Your task to perform on an android device: check the backup settings in the google photos Image 0: 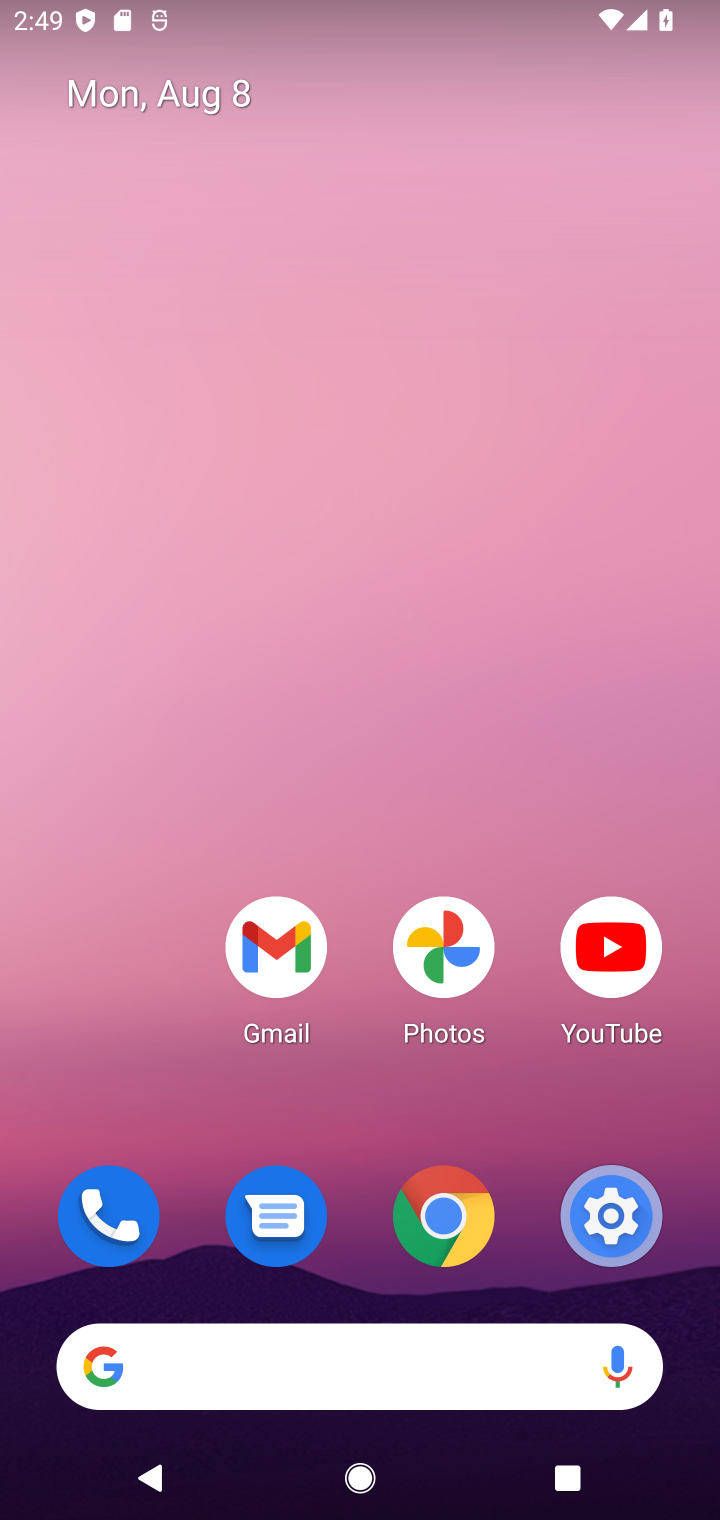
Step 0: click (474, 945)
Your task to perform on an android device: check the backup settings in the google photos Image 1: 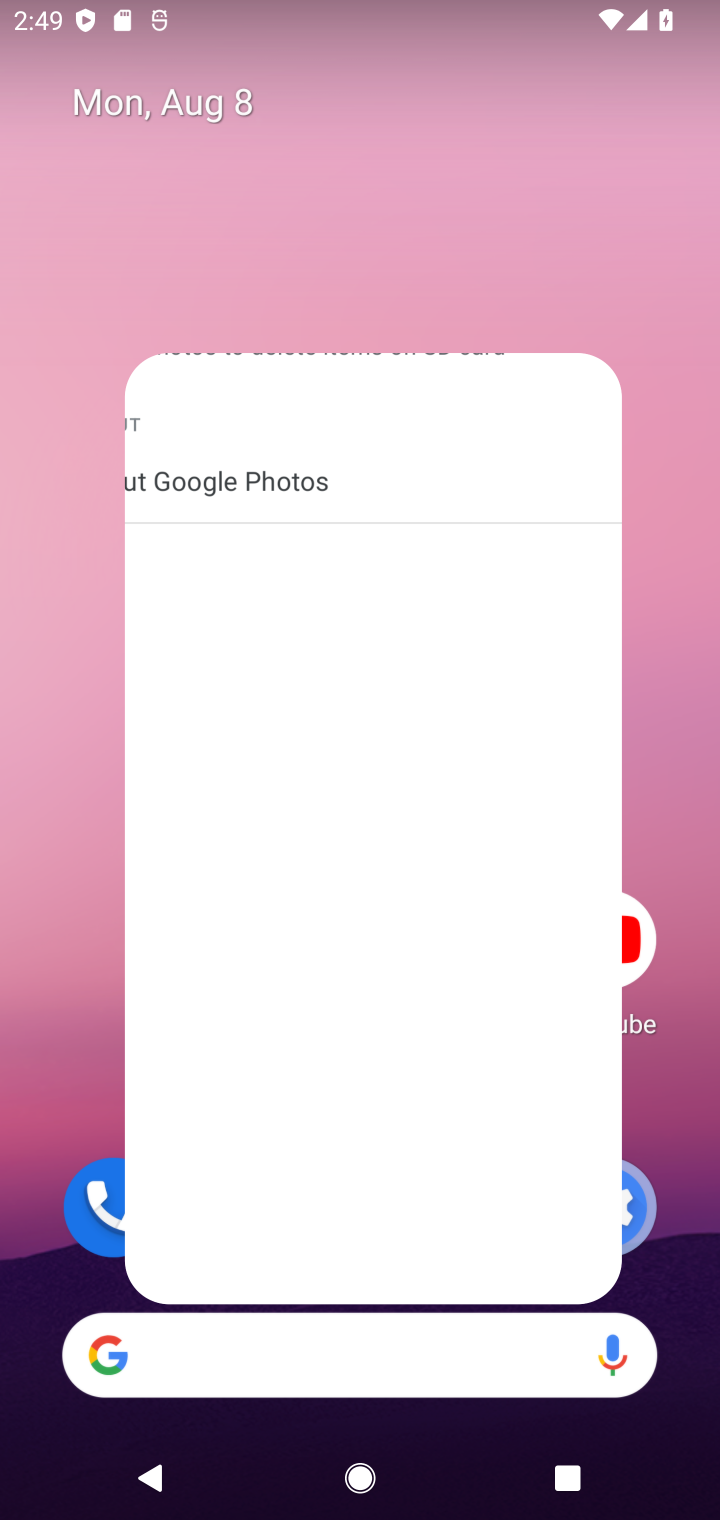
Step 1: click (453, 953)
Your task to perform on an android device: check the backup settings in the google photos Image 2: 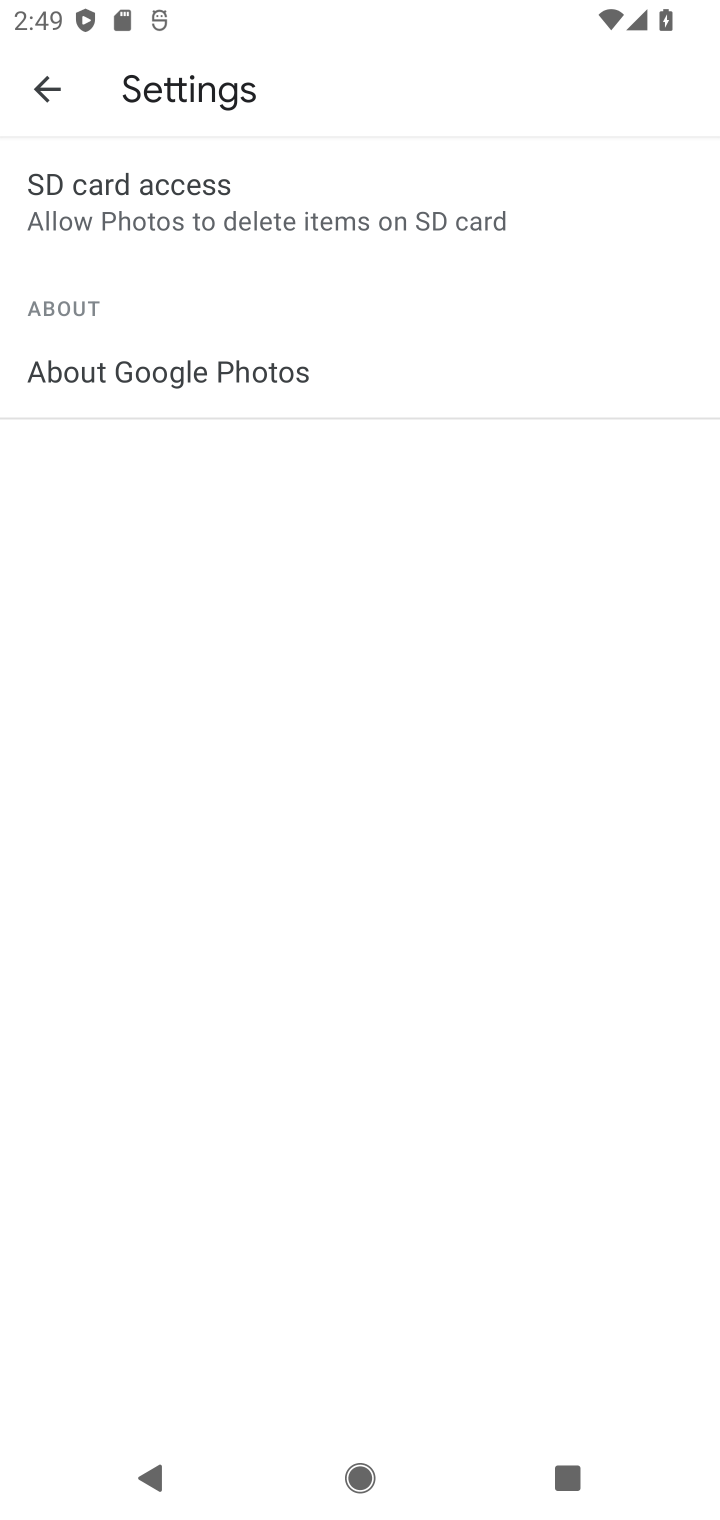
Step 2: click (35, 85)
Your task to perform on an android device: check the backup settings in the google photos Image 3: 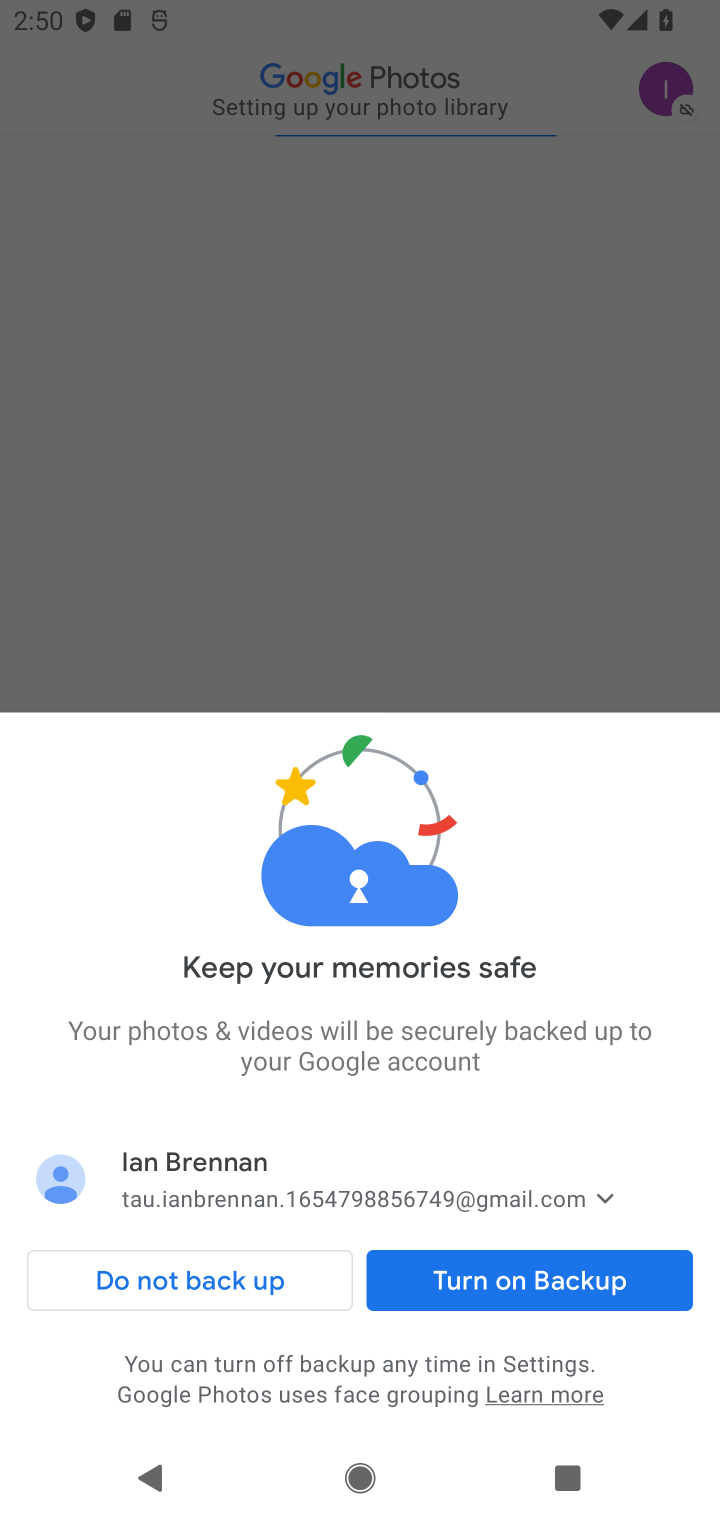
Step 3: click (600, 1267)
Your task to perform on an android device: check the backup settings in the google photos Image 4: 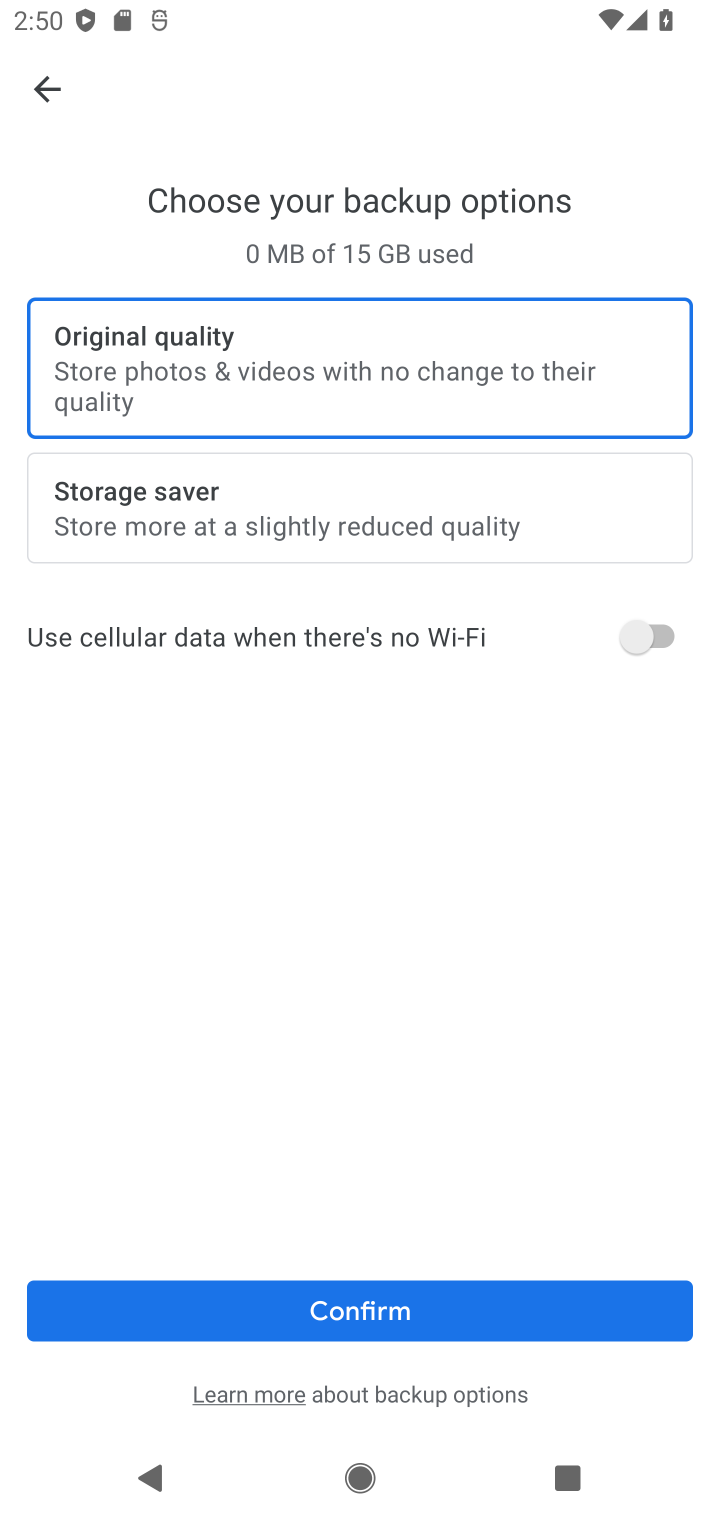
Step 4: click (90, 535)
Your task to perform on an android device: check the backup settings in the google photos Image 5: 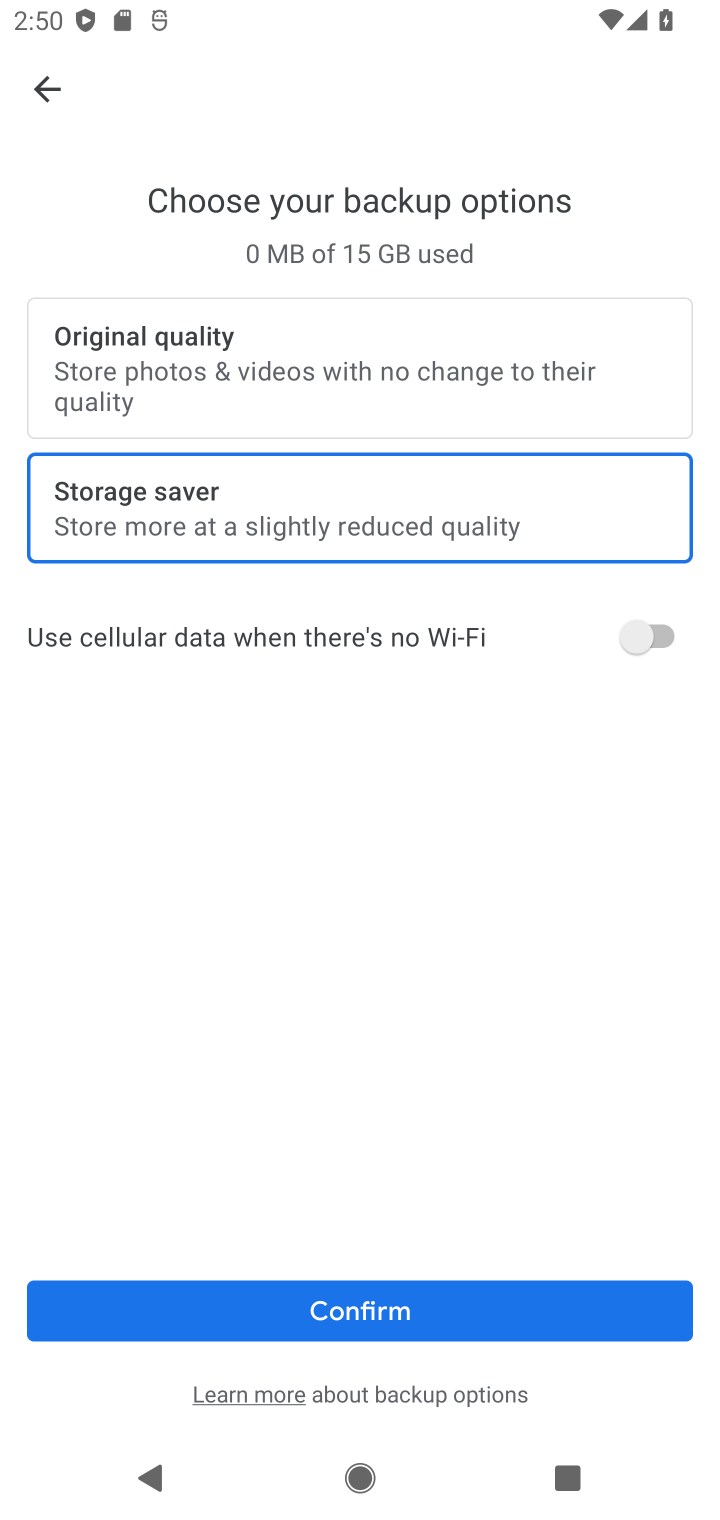
Step 5: click (384, 1320)
Your task to perform on an android device: check the backup settings in the google photos Image 6: 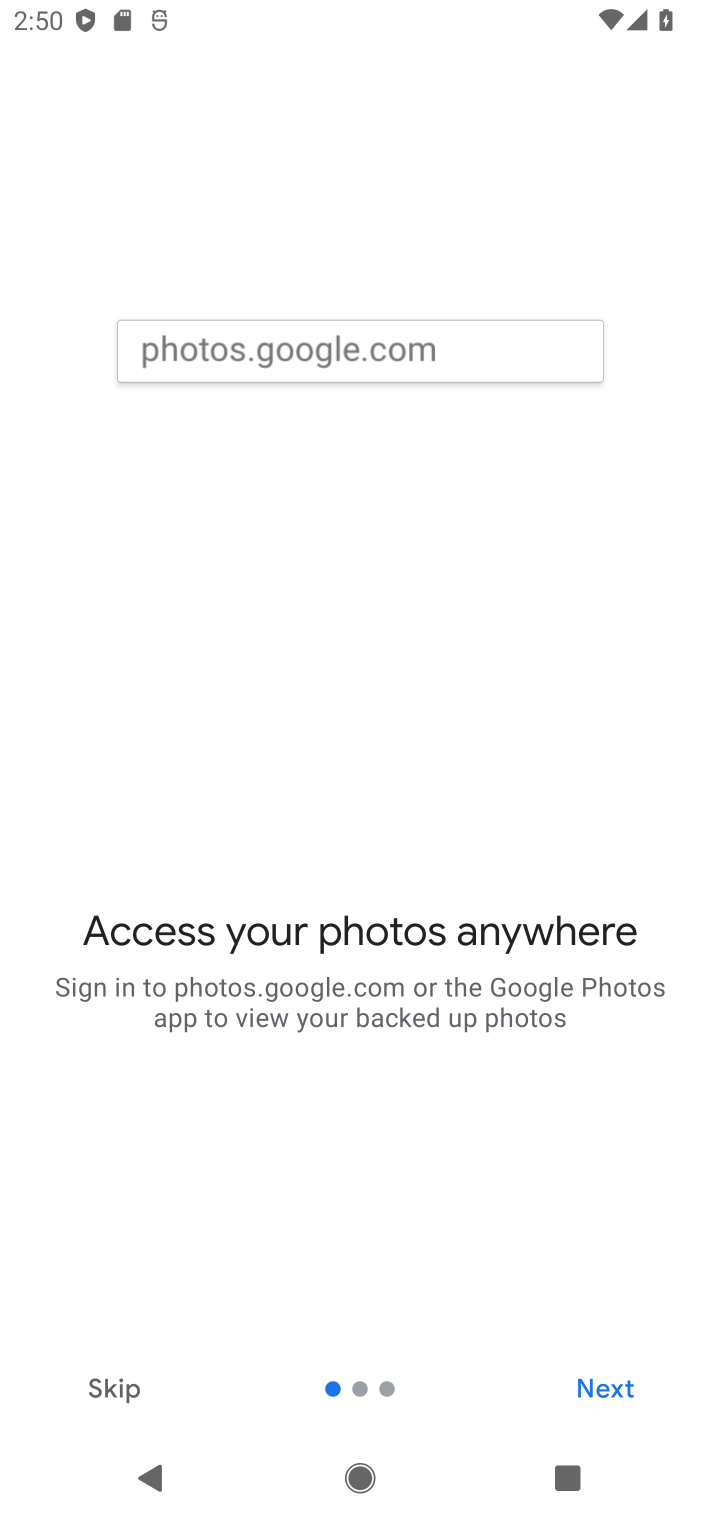
Step 6: click (611, 1401)
Your task to perform on an android device: check the backup settings in the google photos Image 7: 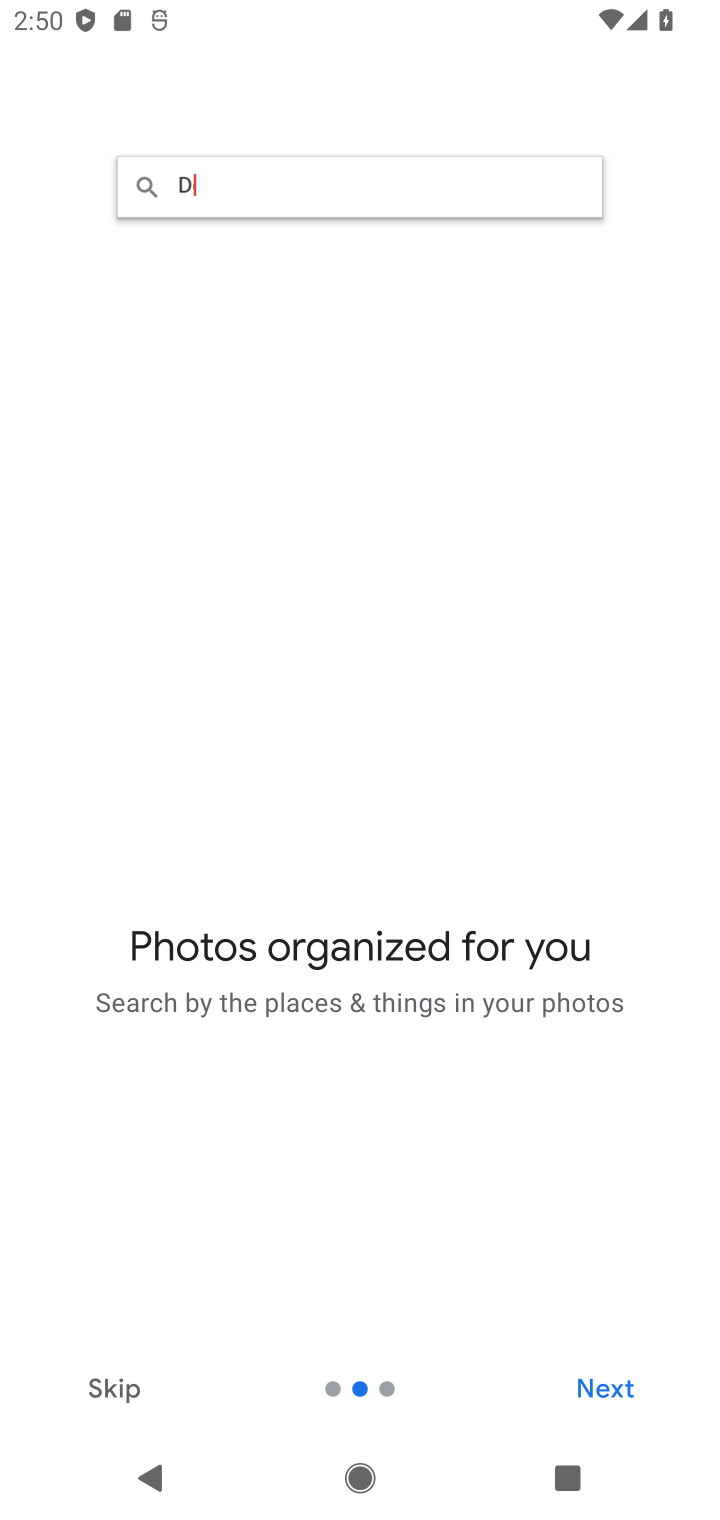
Step 7: click (611, 1401)
Your task to perform on an android device: check the backup settings in the google photos Image 8: 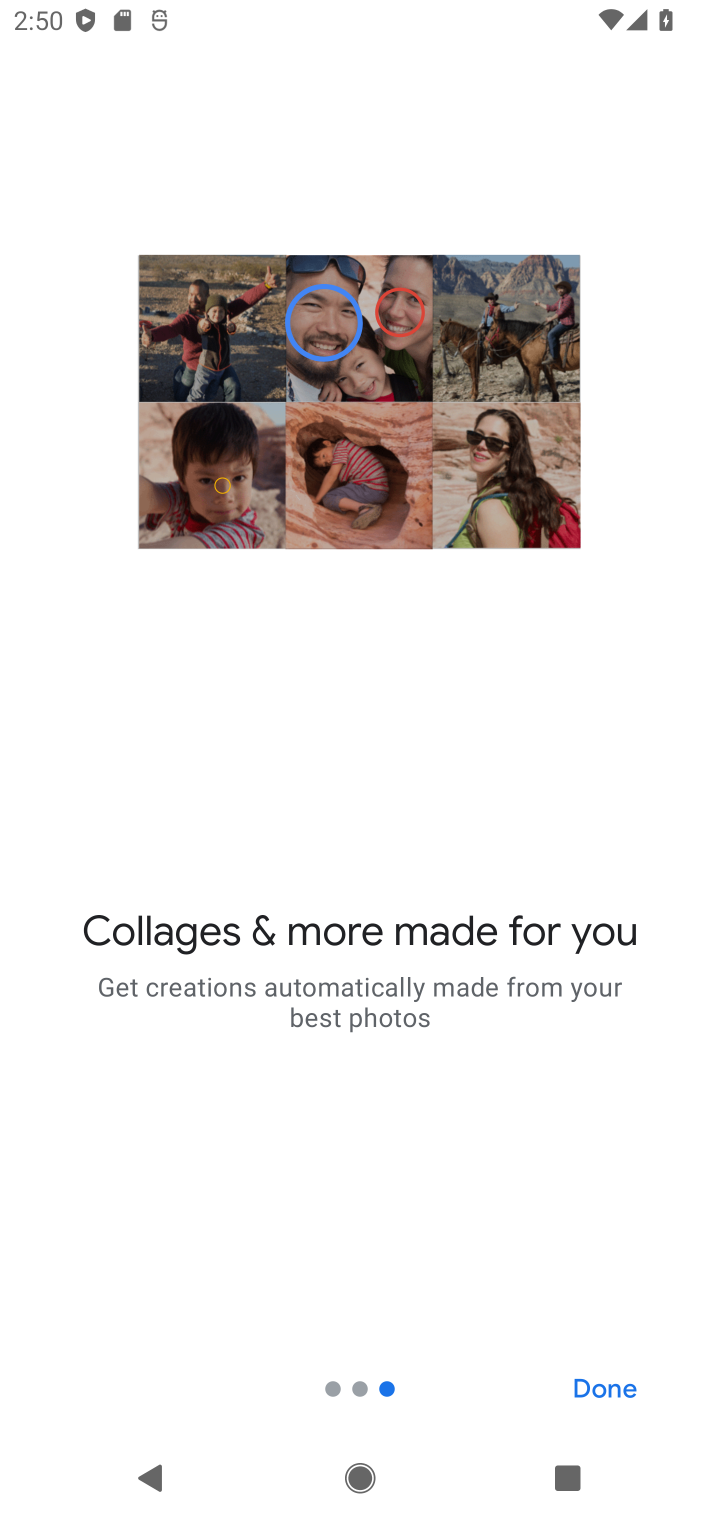
Step 8: click (611, 1401)
Your task to perform on an android device: check the backup settings in the google photos Image 9: 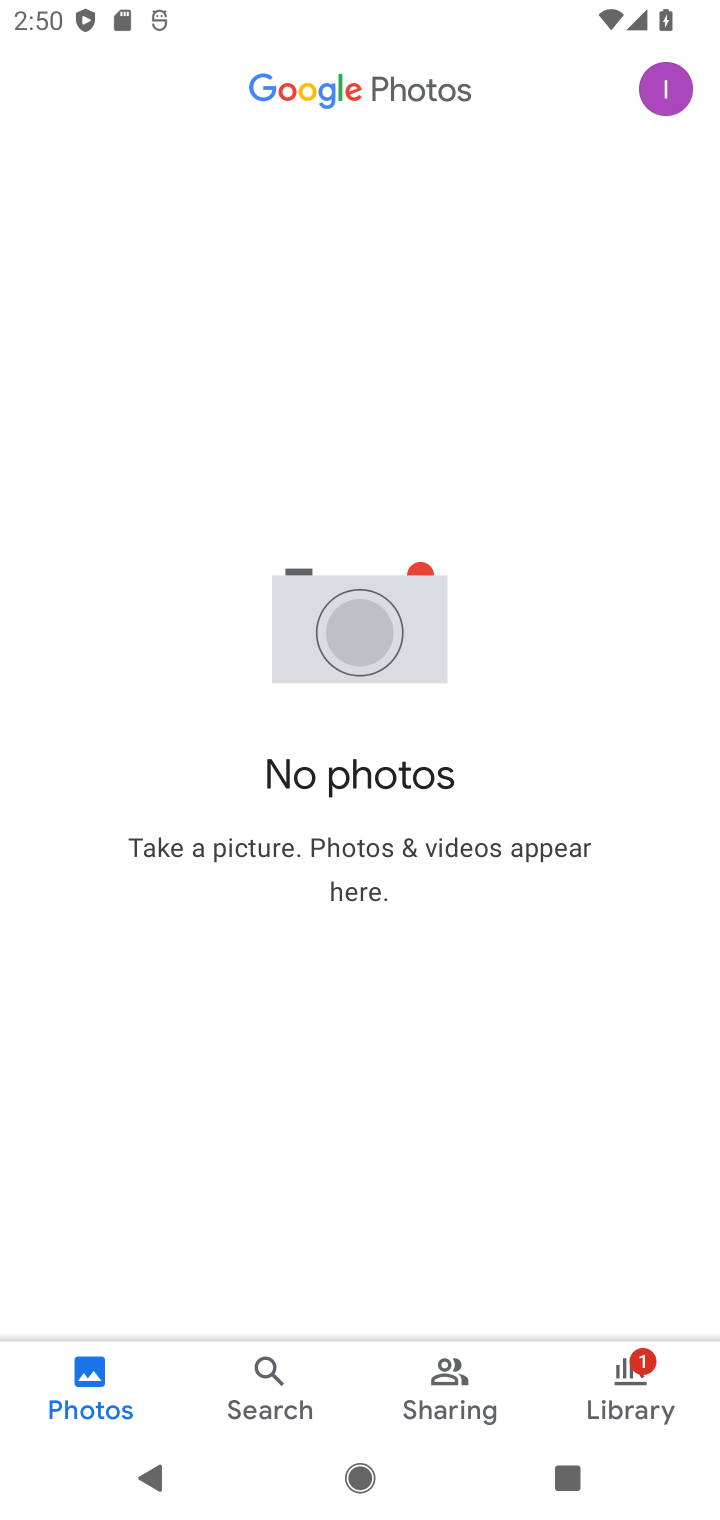
Step 9: click (686, 82)
Your task to perform on an android device: check the backup settings in the google photos Image 10: 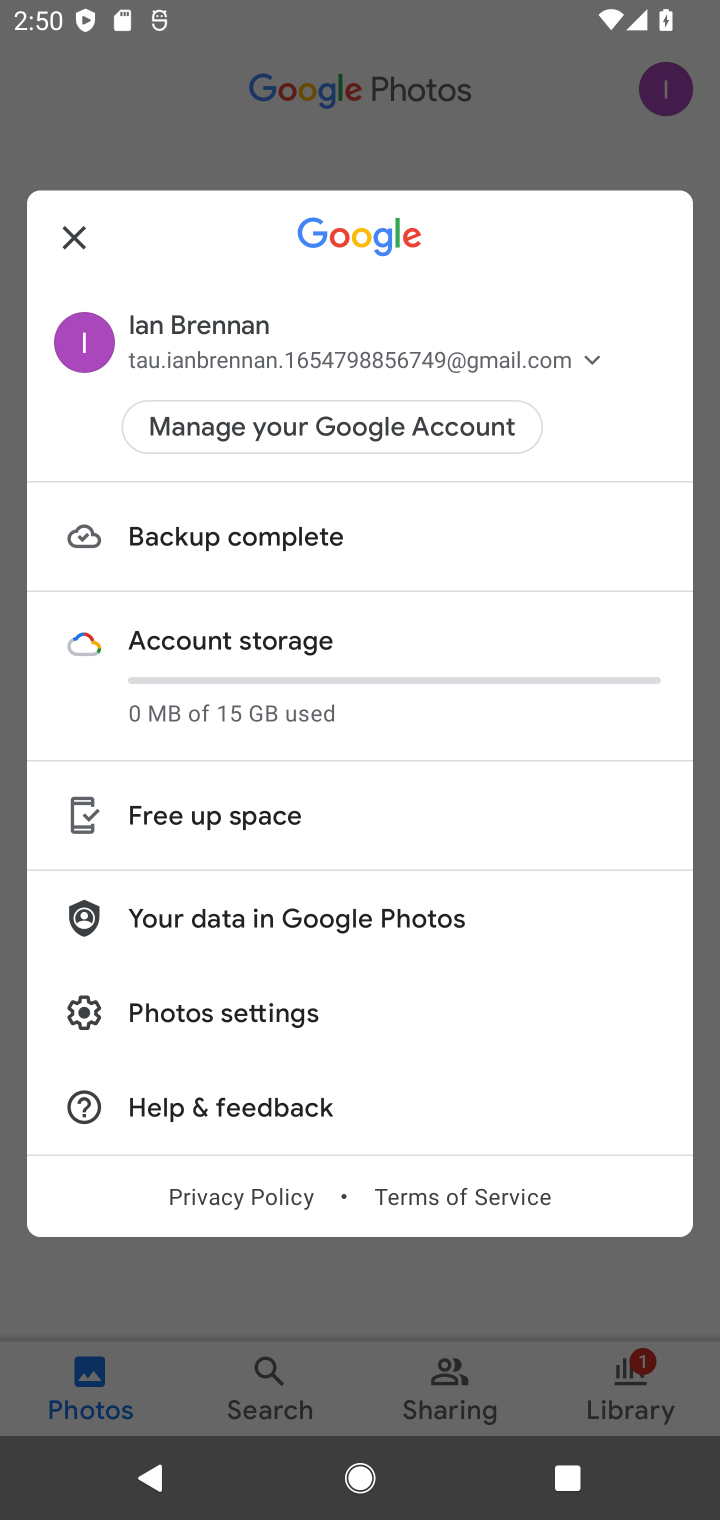
Step 10: click (260, 1010)
Your task to perform on an android device: check the backup settings in the google photos Image 11: 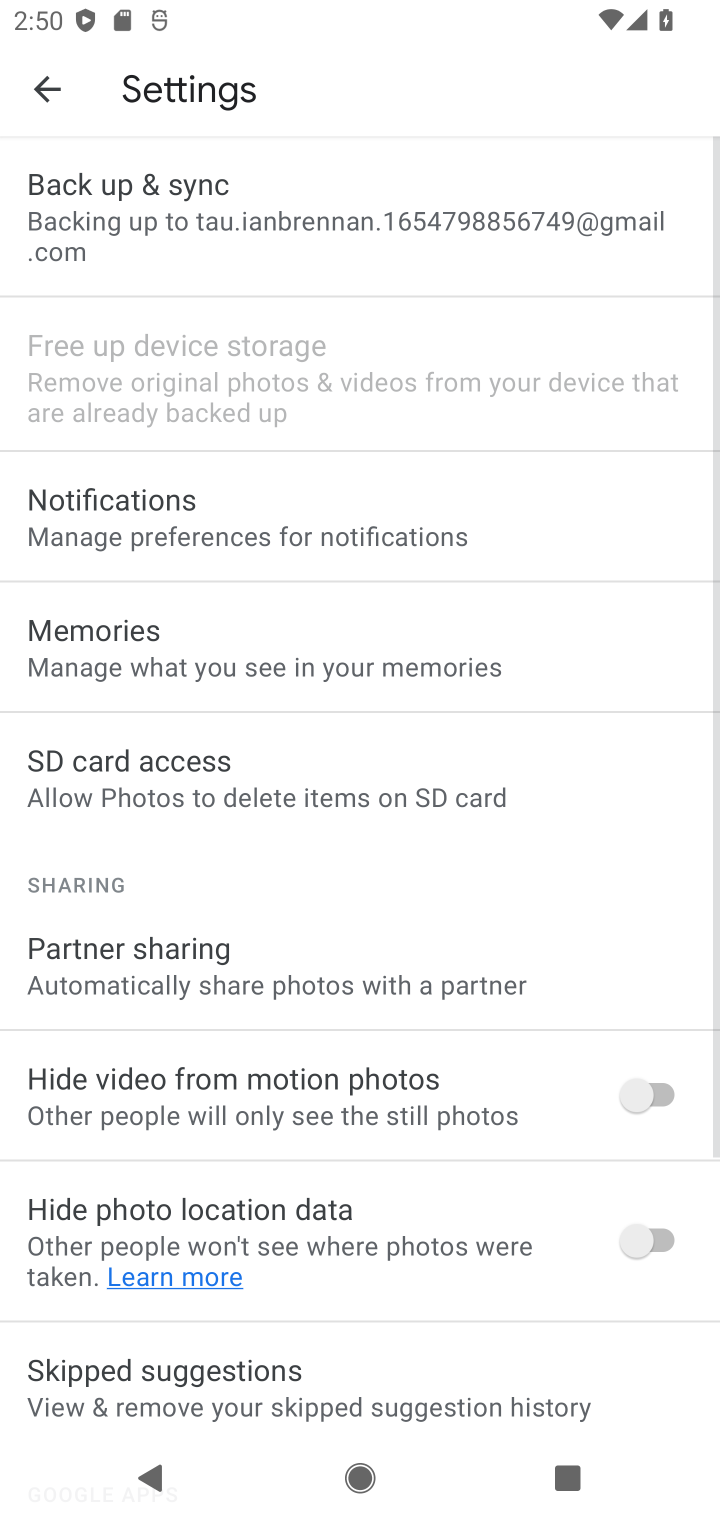
Step 11: click (144, 252)
Your task to perform on an android device: check the backup settings in the google photos Image 12: 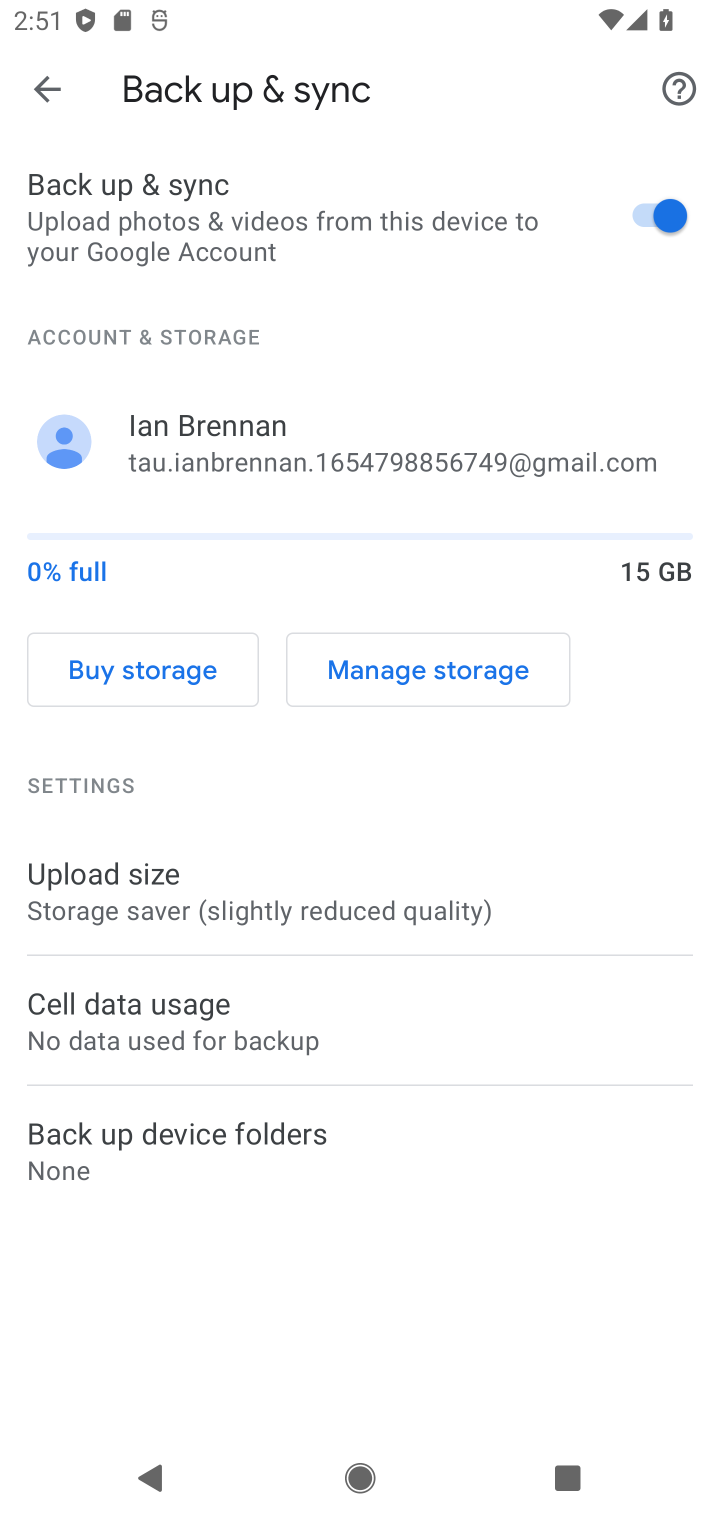
Step 12: task complete